Your task to perform on an android device: Open ESPN.com Image 0: 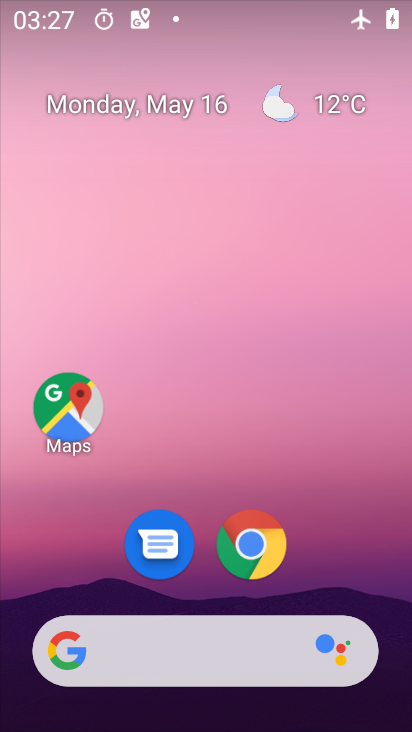
Step 0: click (254, 543)
Your task to perform on an android device: Open ESPN.com Image 1: 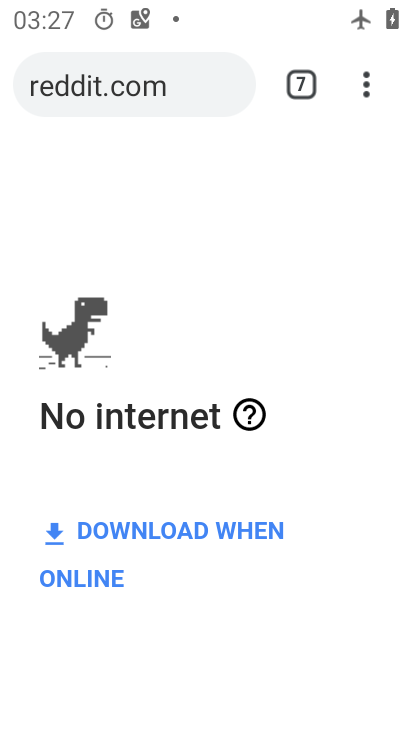
Step 1: press home button
Your task to perform on an android device: Open ESPN.com Image 2: 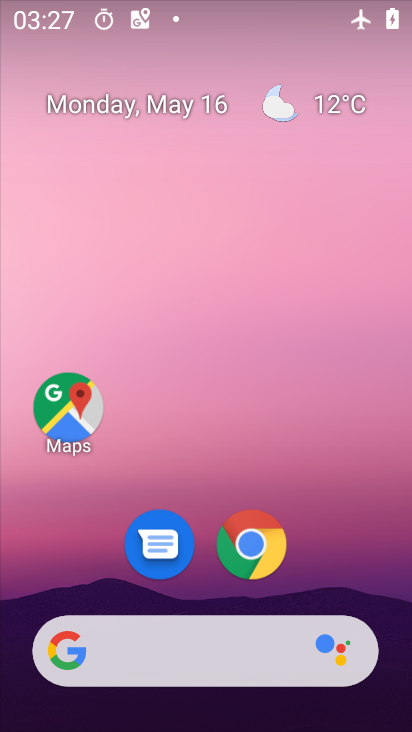
Step 2: drag from (239, 696) to (256, 223)
Your task to perform on an android device: Open ESPN.com Image 3: 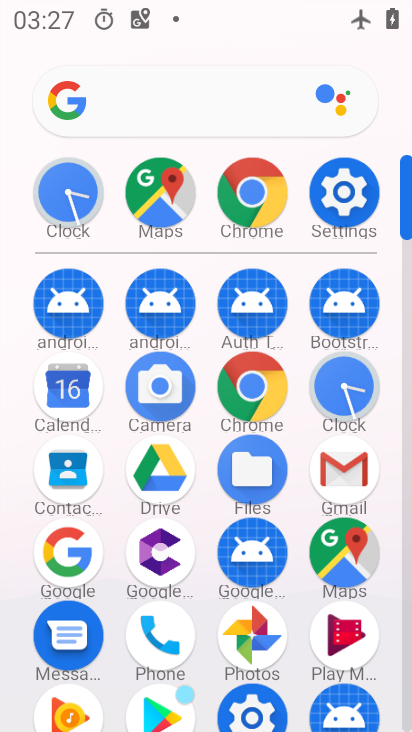
Step 3: click (349, 186)
Your task to perform on an android device: Open ESPN.com Image 4: 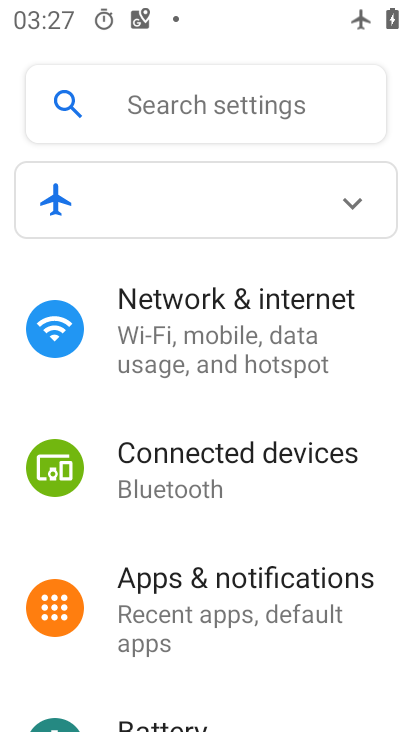
Step 4: click (168, 315)
Your task to perform on an android device: Open ESPN.com Image 5: 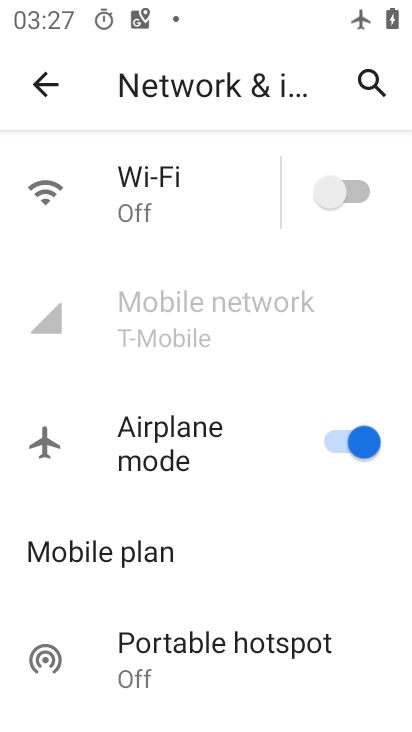
Step 5: click (342, 443)
Your task to perform on an android device: Open ESPN.com Image 6: 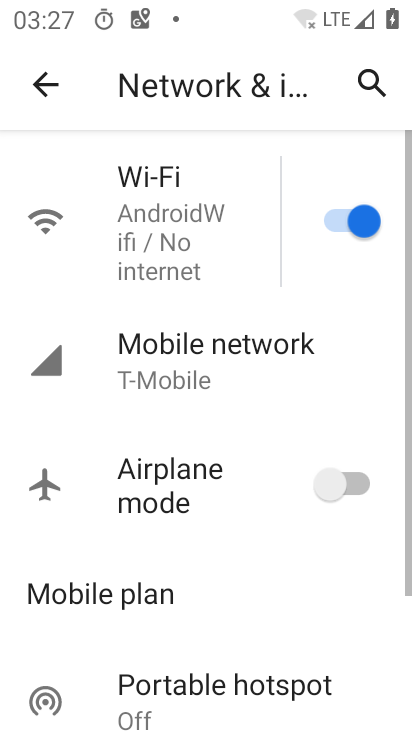
Step 6: press home button
Your task to perform on an android device: Open ESPN.com Image 7: 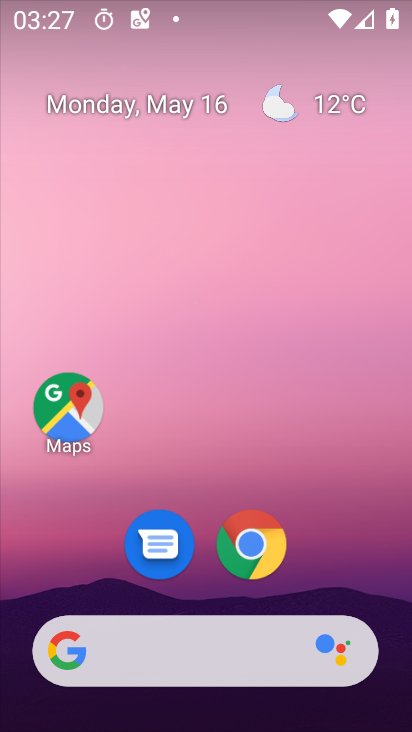
Step 7: click (255, 564)
Your task to perform on an android device: Open ESPN.com Image 8: 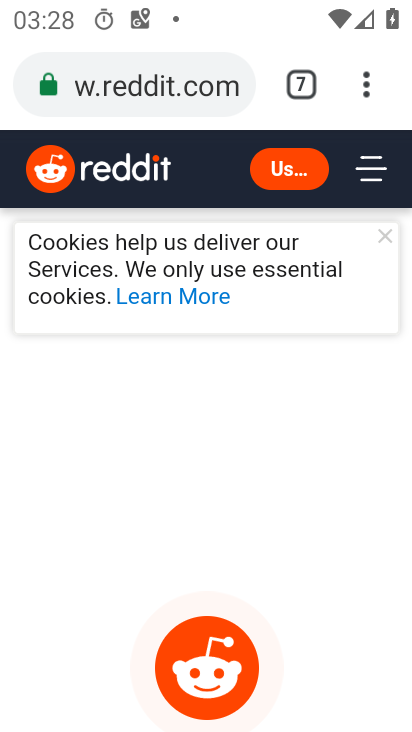
Step 8: click (370, 96)
Your task to perform on an android device: Open ESPN.com Image 9: 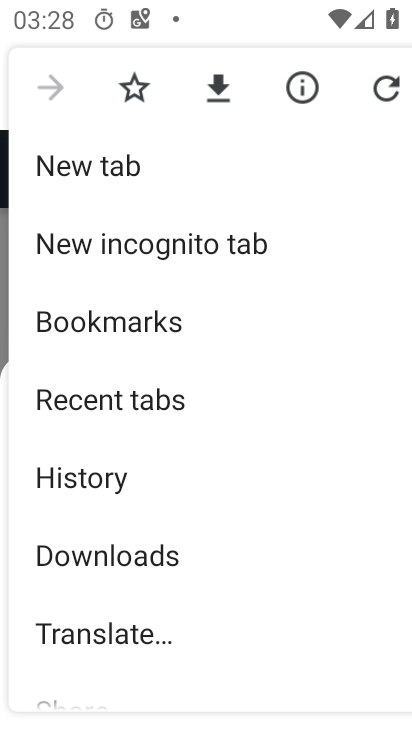
Step 9: click (86, 168)
Your task to perform on an android device: Open ESPN.com Image 10: 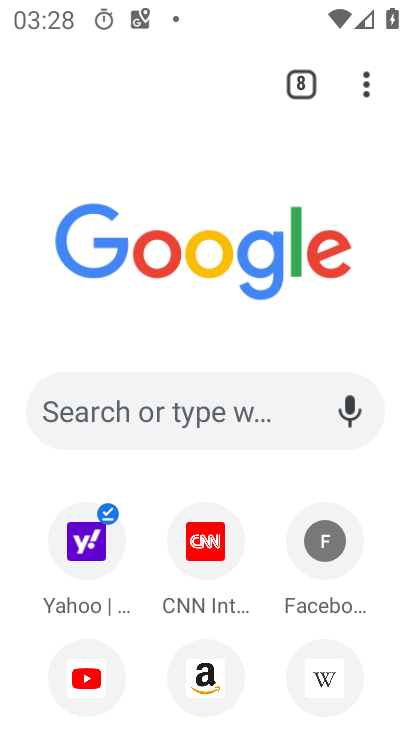
Step 10: click (186, 405)
Your task to perform on an android device: Open ESPN.com Image 11: 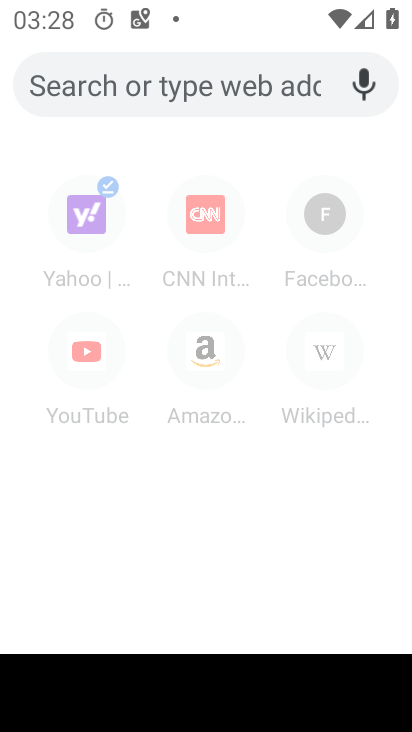
Step 11: type "ESPN.com"
Your task to perform on an android device: Open ESPN.com Image 12: 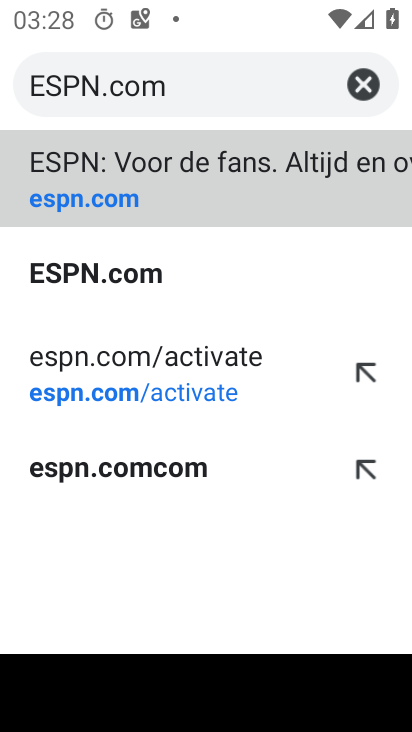
Step 12: click (115, 155)
Your task to perform on an android device: Open ESPN.com Image 13: 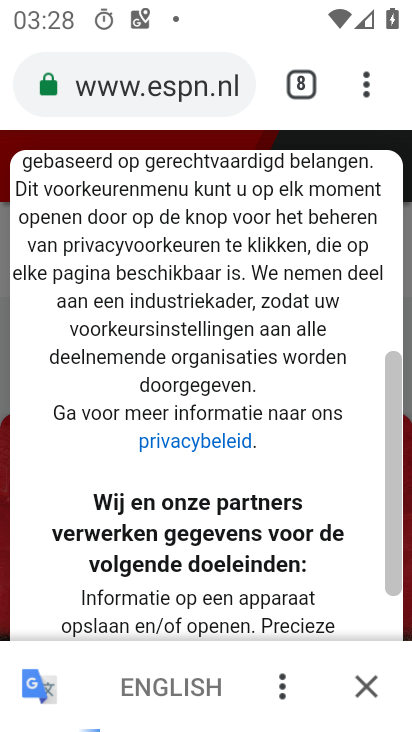
Step 13: task complete